Your task to perform on an android device: read, delete, or share a saved page in the chrome app Image 0: 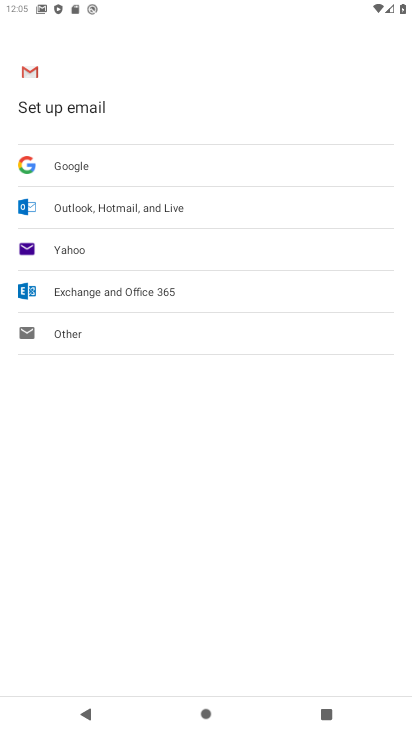
Step 0: press home button
Your task to perform on an android device: read, delete, or share a saved page in the chrome app Image 1: 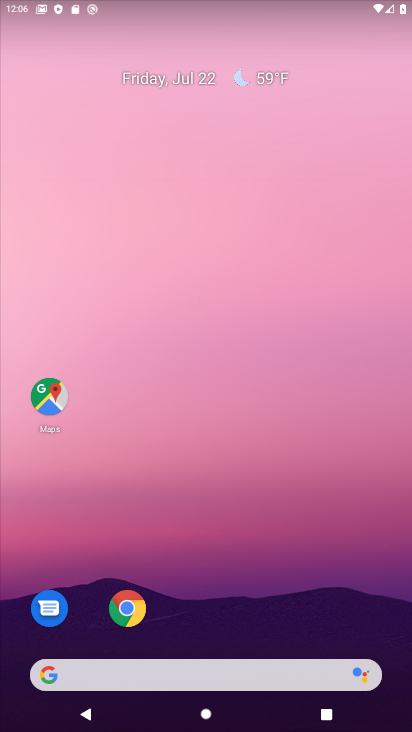
Step 1: drag from (216, 603) to (103, 60)
Your task to perform on an android device: read, delete, or share a saved page in the chrome app Image 2: 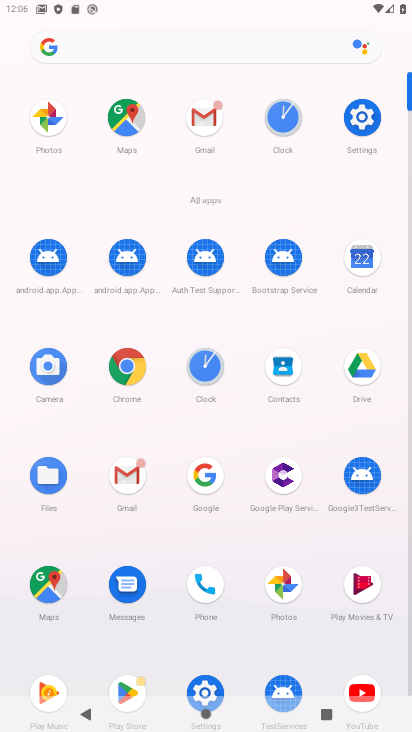
Step 2: click (126, 363)
Your task to perform on an android device: read, delete, or share a saved page in the chrome app Image 3: 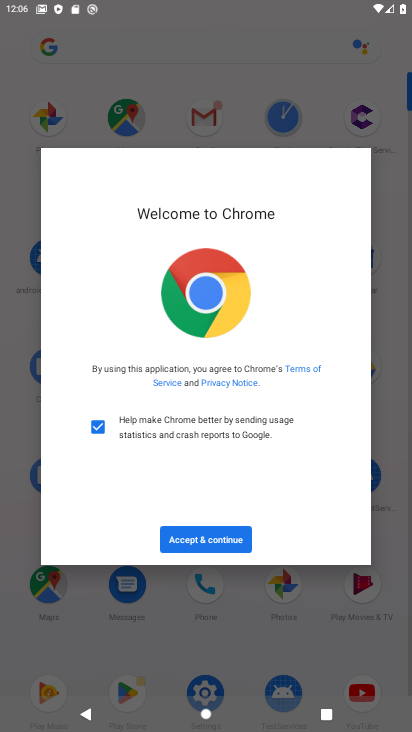
Step 3: click (200, 548)
Your task to perform on an android device: read, delete, or share a saved page in the chrome app Image 4: 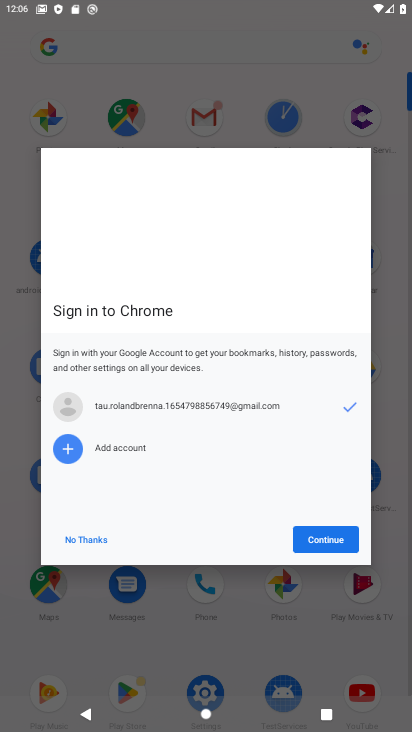
Step 4: click (327, 540)
Your task to perform on an android device: read, delete, or share a saved page in the chrome app Image 5: 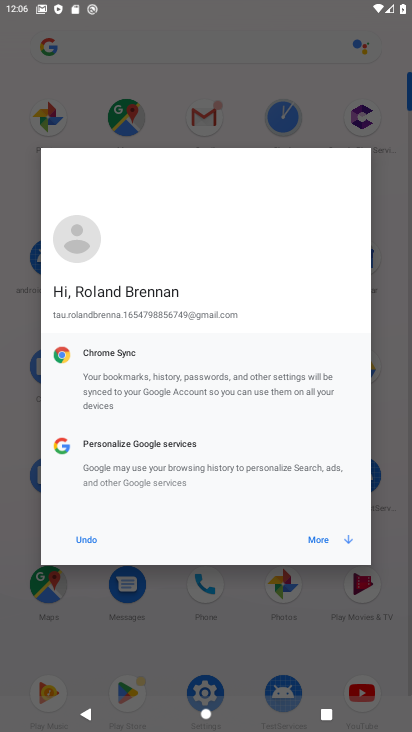
Step 5: click (320, 533)
Your task to perform on an android device: read, delete, or share a saved page in the chrome app Image 6: 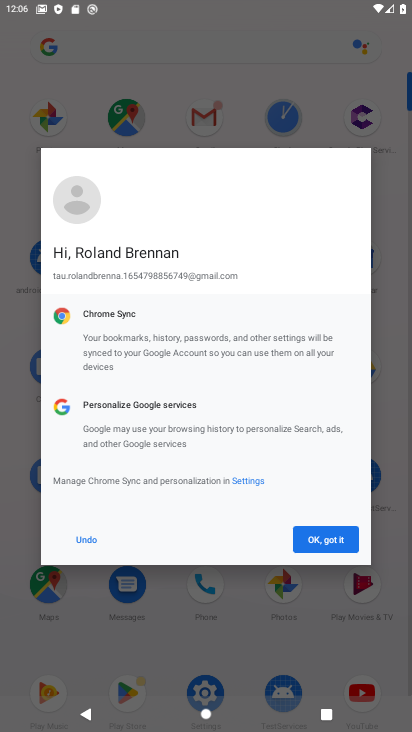
Step 6: click (317, 539)
Your task to perform on an android device: read, delete, or share a saved page in the chrome app Image 7: 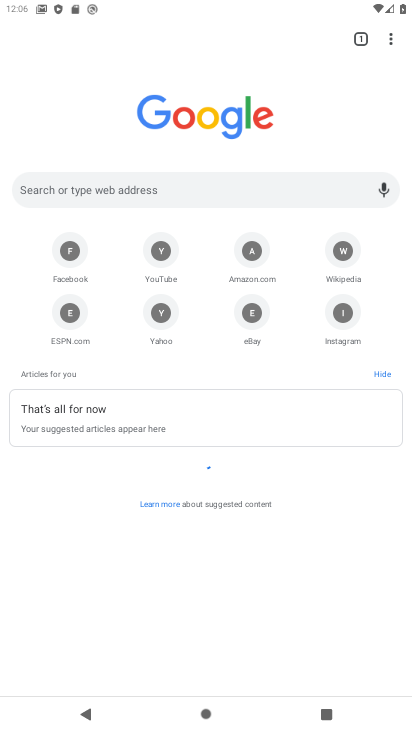
Step 7: click (390, 44)
Your task to perform on an android device: read, delete, or share a saved page in the chrome app Image 8: 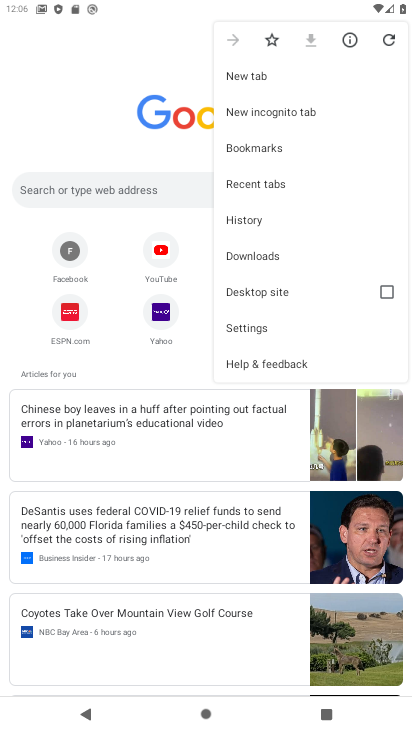
Step 8: click (254, 257)
Your task to perform on an android device: read, delete, or share a saved page in the chrome app Image 9: 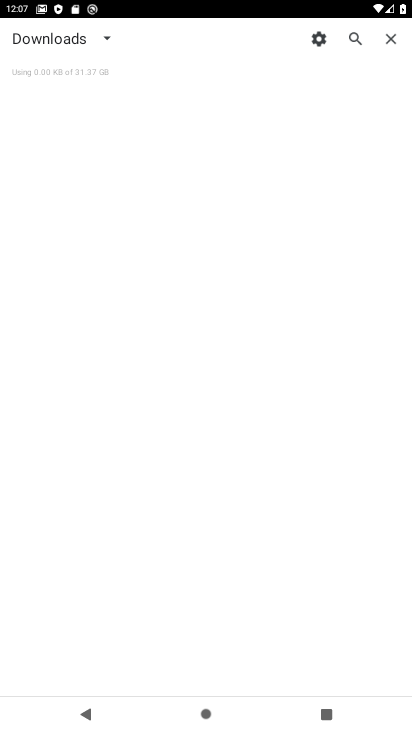
Step 9: task complete